Your task to perform on an android device: all mails in gmail Image 0: 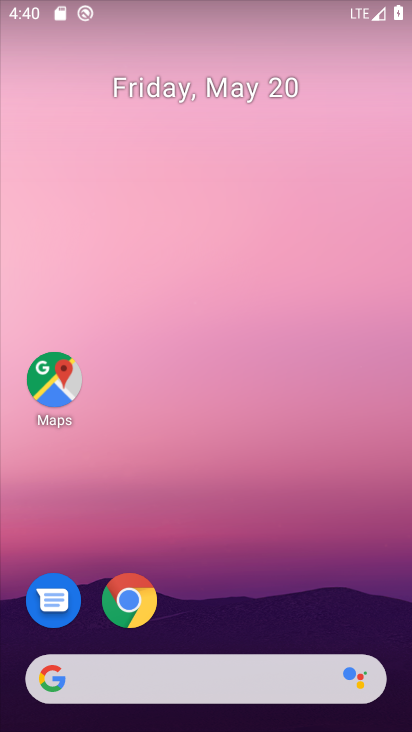
Step 0: drag from (296, 551) to (184, 74)
Your task to perform on an android device: all mails in gmail Image 1: 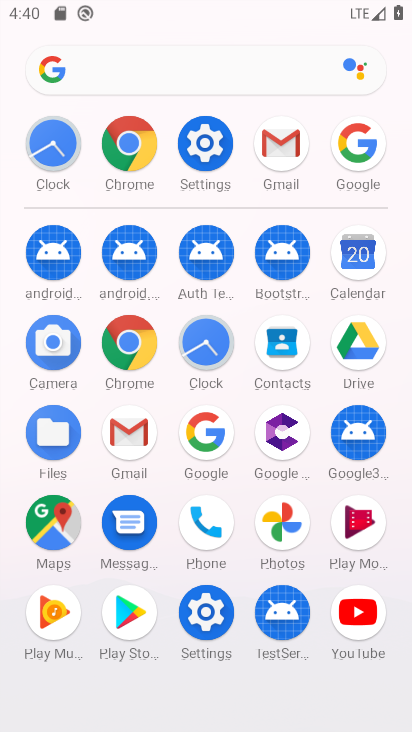
Step 1: click (278, 147)
Your task to perform on an android device: all mails in gmail Image 2: 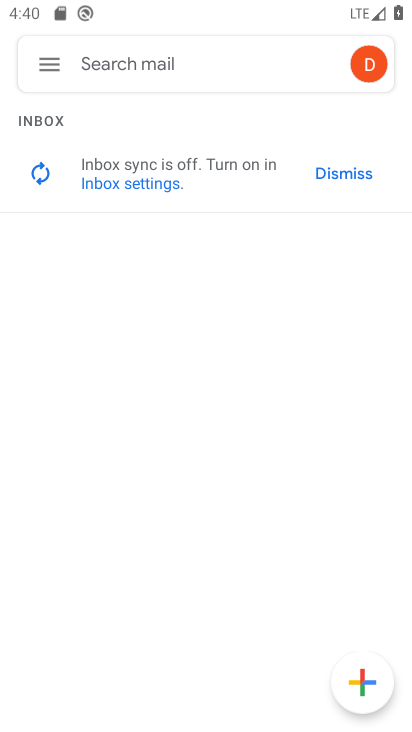
Step 2: click (45, 67)
Your task to perform on an android device: all mails in gmail Image 3: 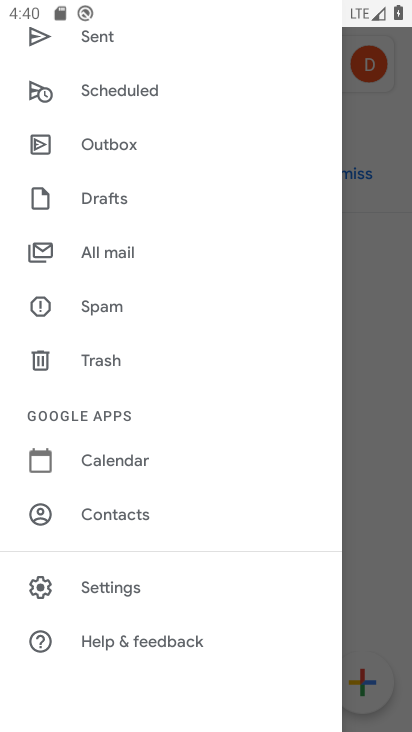
Step 3: click (188, 261)
Your task to perform on an android device: all mails in gmail Image 4: 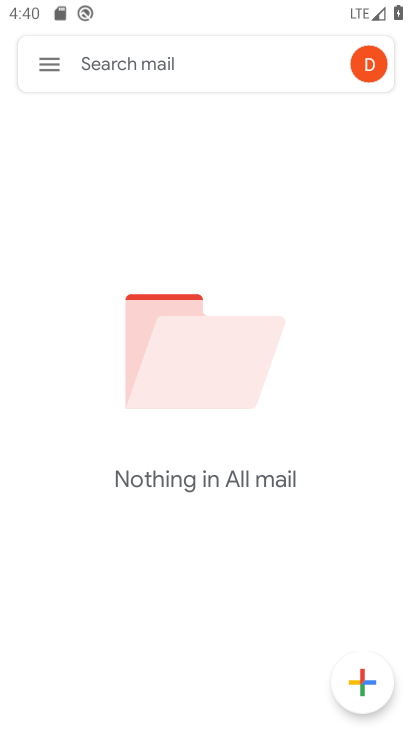
Step 4: task complete